Your task to perform on an android device: Turn off the flashlight Image 0: 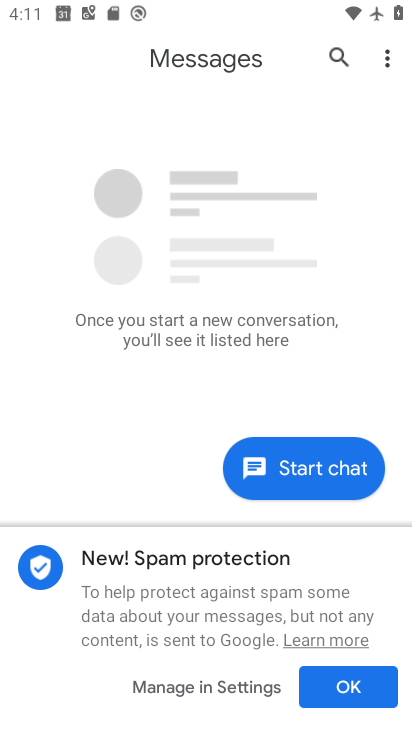
Step 0: press home button
Your task to perform on an android device: Turn off the flashlight Image 1: 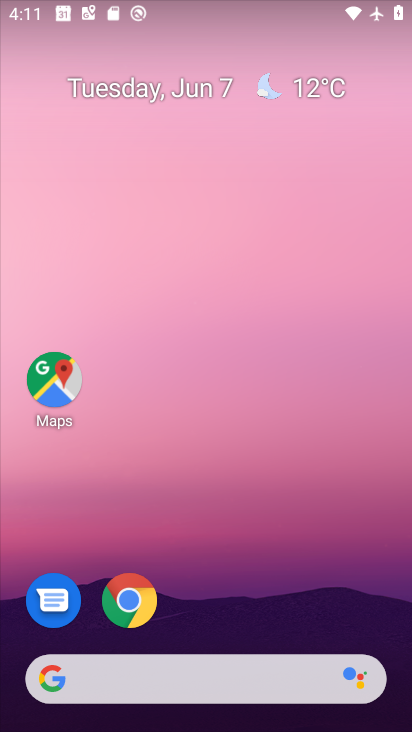
Step 1: drag from (293, 493) to (225, 42)
Your task to perform on an android device: Turn off the flashlight Image 2: 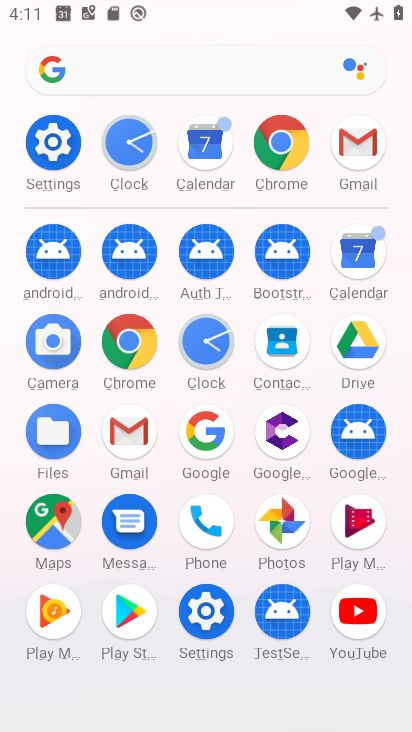
Step 2: click (45, 131)
Your task to perform on an android device: Turn off the flashlight Image 3: 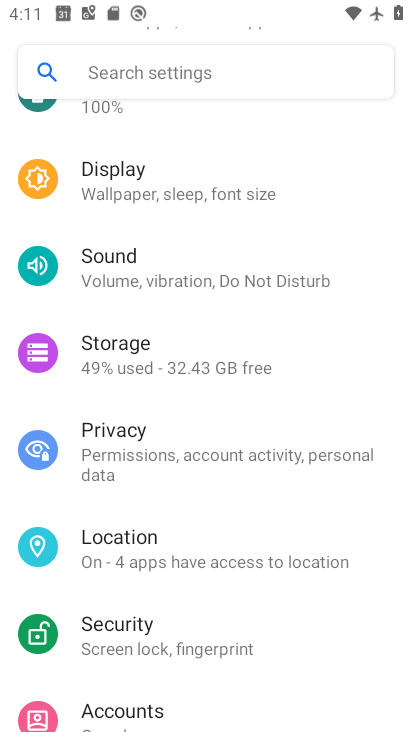
Step 3: drag from (199, 167) to (206, 563)
Your task to perform on an android device: Turn off the flashlight Image 4: 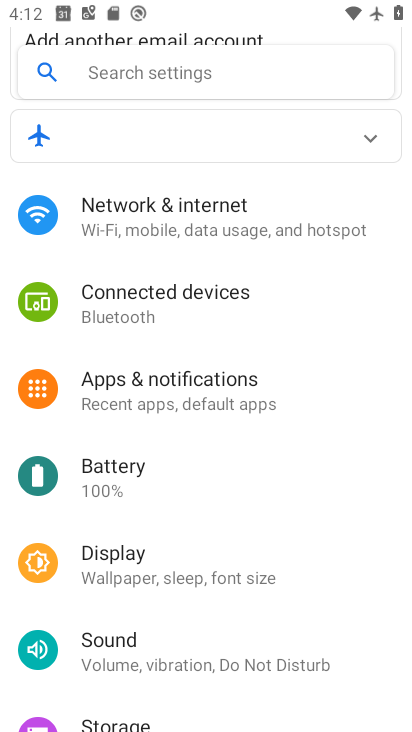
Step 4: click (111, 561)
Your task to perform on an android device: Turn off the flashlight Image 5: 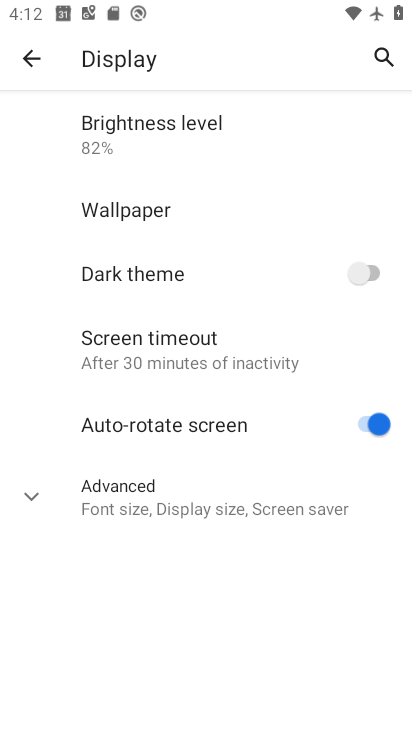
Step 5: task complete